Your task to perform on an android device: Show me popular videos on Youtube Image 0: 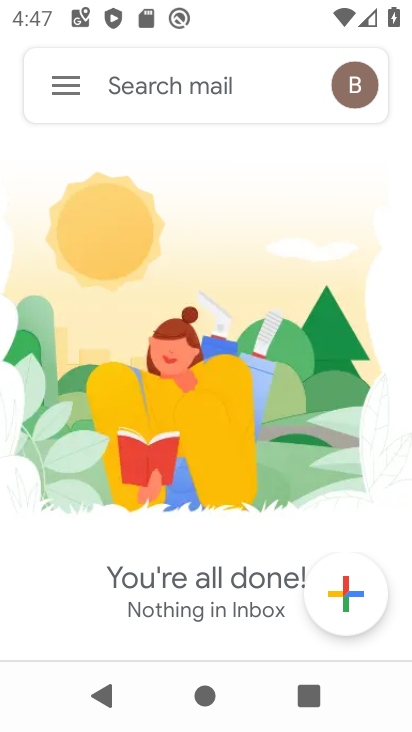
Step 0: press home button
Your task to perform on an android device: Show me popular videos on Youtube Image 1: 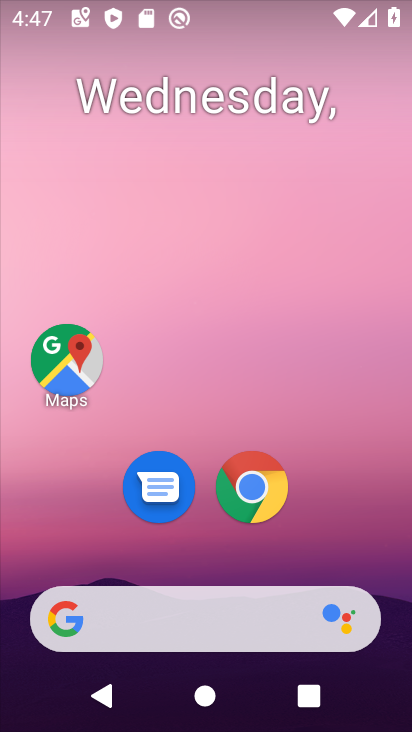
Step 1: drag from (234, 414) to (280, 237)
Your task to perform on an android device: Show me popular videos on Youtube Image 2: 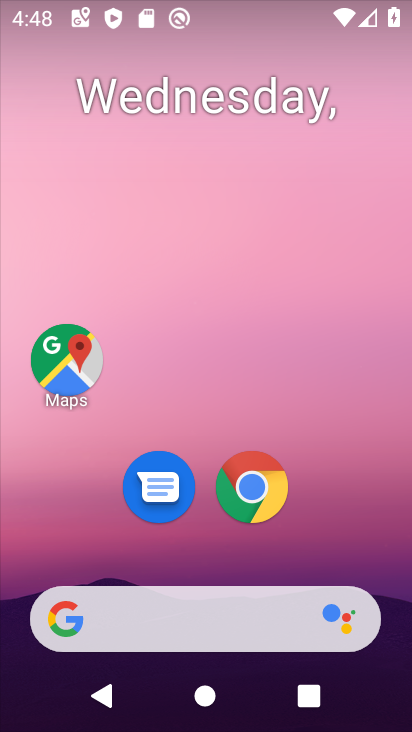
Step 2: drag from (193, 632) to (243, 172)
Your task to perform on an android device: Show me popular videos on Youtube Image 3: 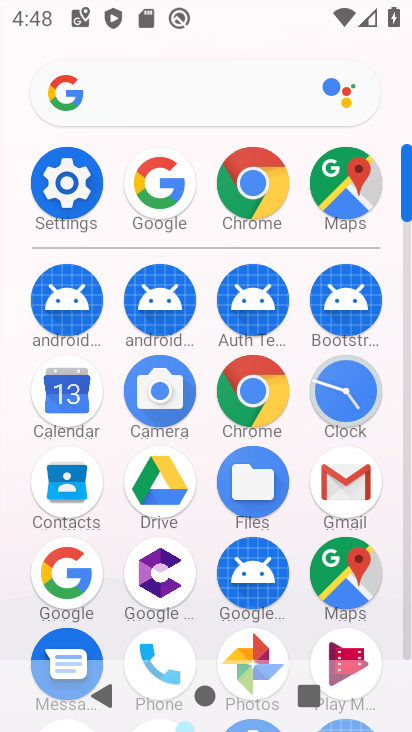
Step 3: drag from (260, 486) to (292, 190)
Your task to perform on an android device: Show me popular videos on Youtube Image 4: 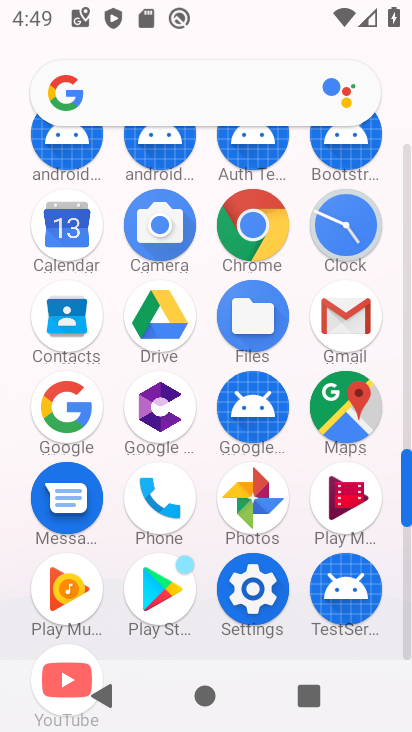
Step 4: drag from (160, 531) to (170, 248)
Your task to perform on an android device: Show me popular videos on Youtube Image 5: 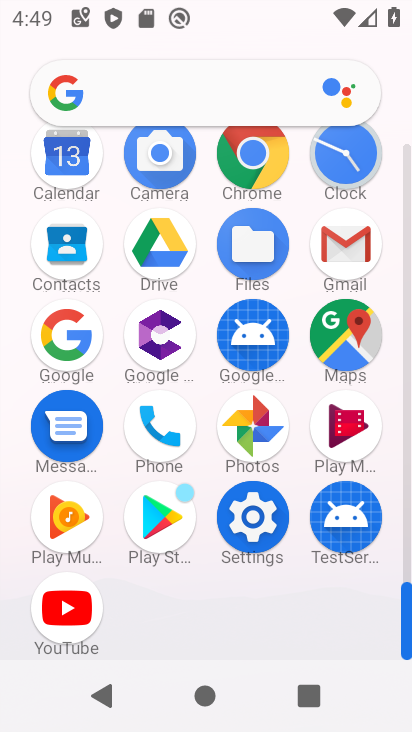
Step 5: click (83, 623)
Your task to perform on an android device: Show me popular videos on Youtube Image 6: 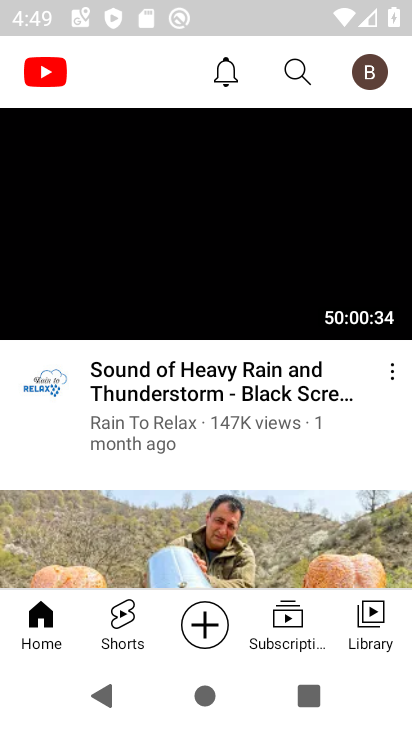
Step 6: click (290, 75)
Your task to perform on an android device: Show me popular videos on Youtube Image 7: 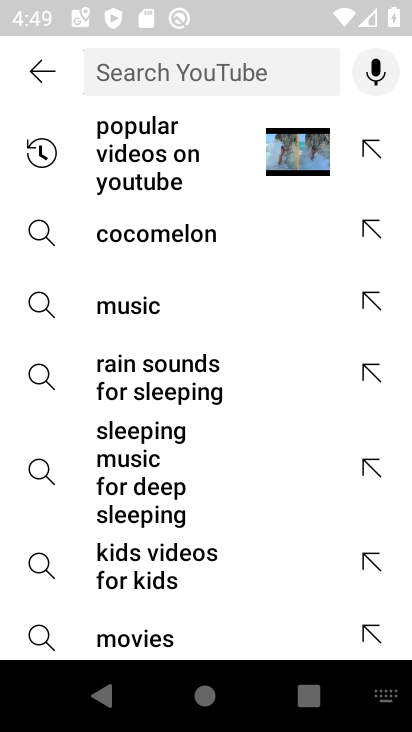
Step 7: task complete